Your task to perform on an android device: snooze an email in the gmail app Image 0: 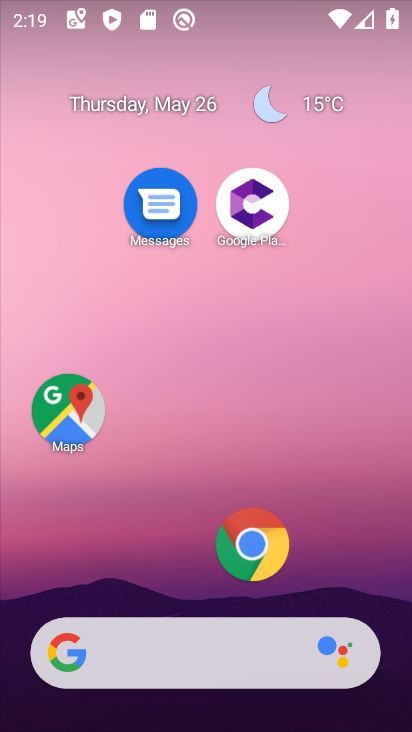
Step 0: drag from (191, 585) to (176, 67)
Your task to perform on an android device: snooze an email in the gmail app Image 1: 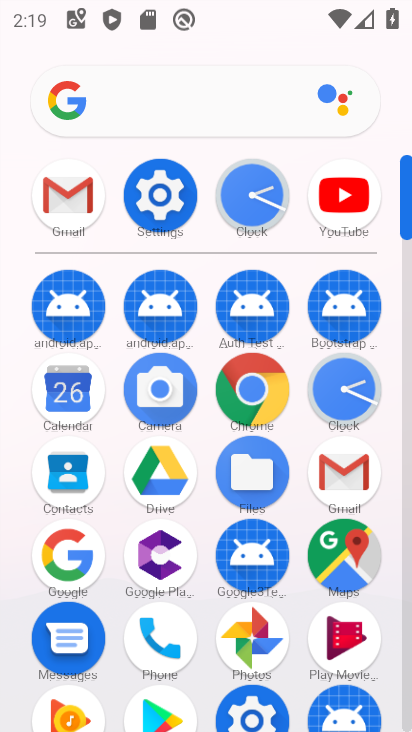
Step 1: click (62, 172)
Your task to perform on an android device: snooze an email in the gmail app Image 2: 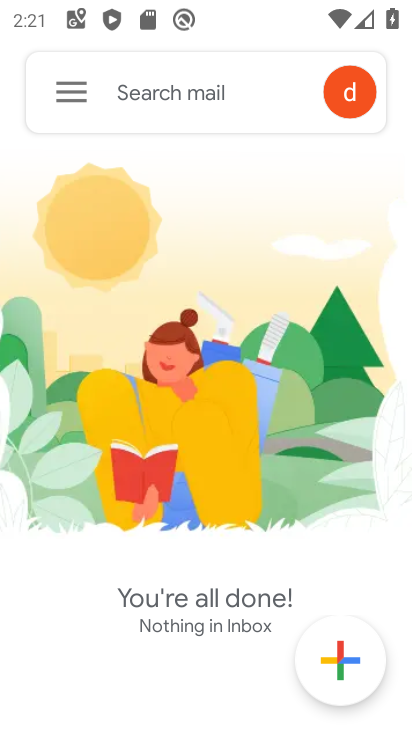
Step 2: task complete